Your task to perform on an android device: Show me recent news Image 0: 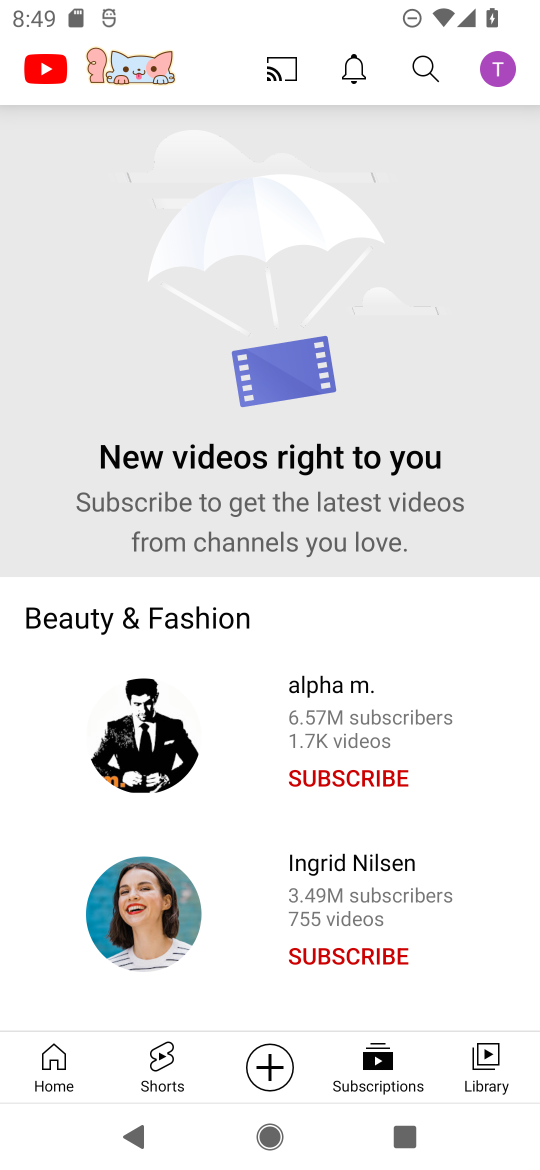
Step 0: press home button
Your task to perform on an android device: Show me recent news Image 1: 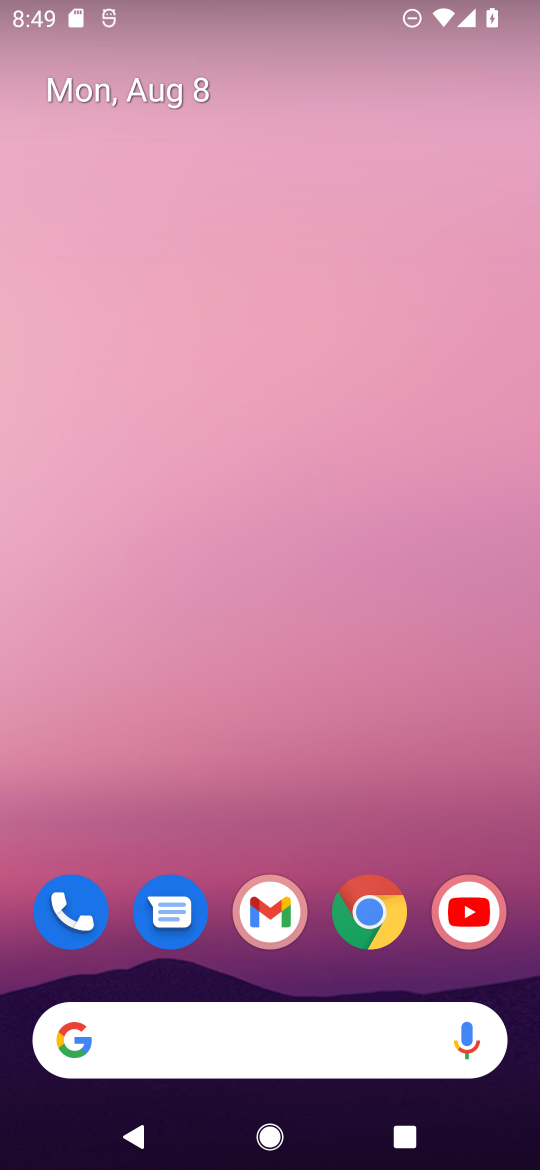
Step 1: drag from (410, 829) to (298, 160)
Your task to perform on an android device: Show me recent news Image 2: 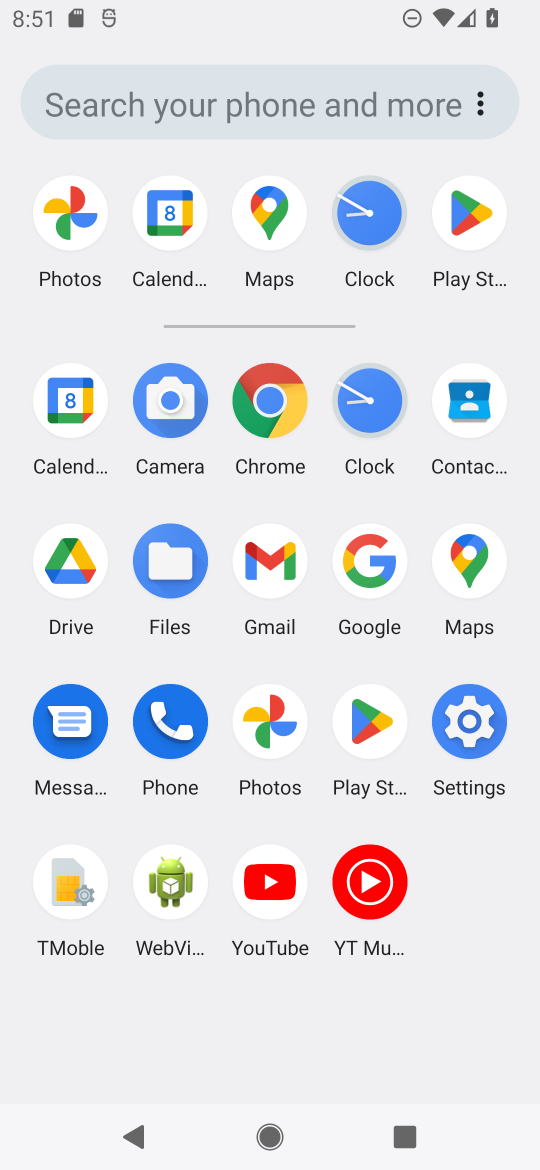
Step 2: click (383, 574)
Your task to perform on an android device: Show me recent news Image 3: 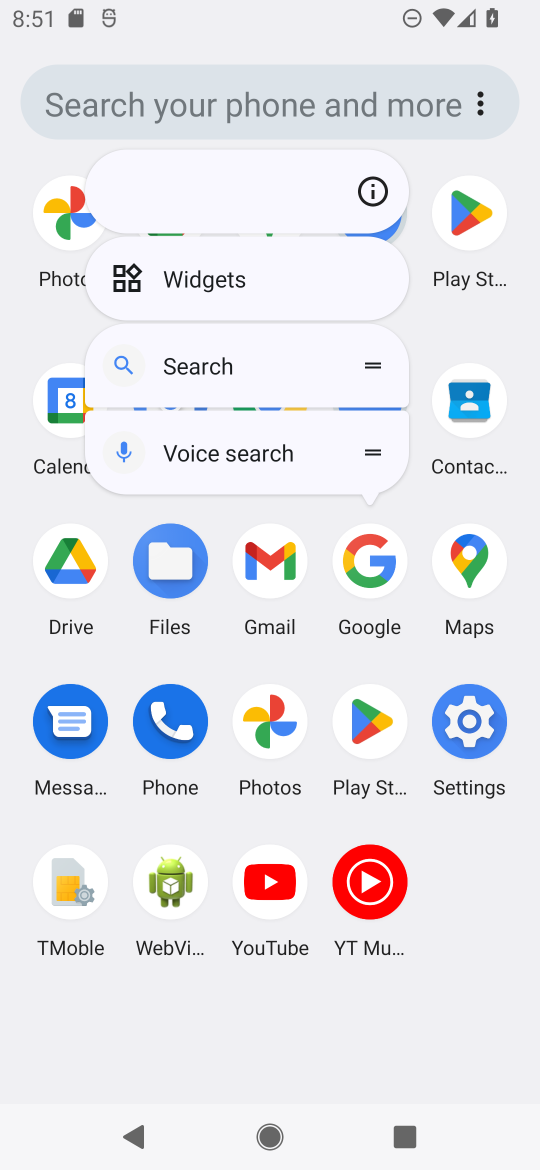
Step 3: click (383, 574)
Your task to perform on an android device: Show me recent news Image 4: 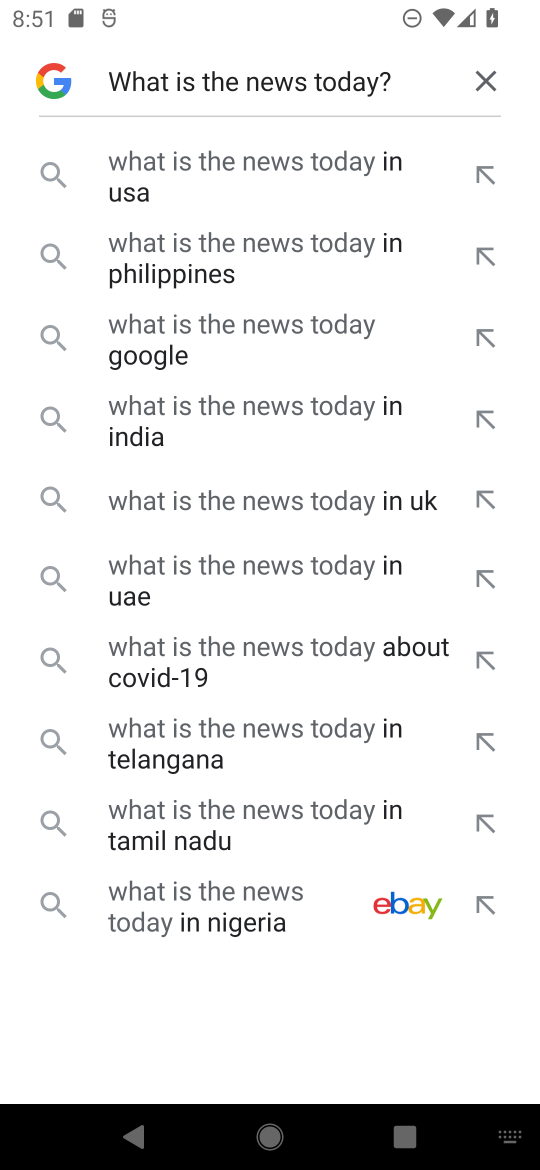
Step 4: click (494, 71)
Your task to perform on an android device: Show me recent news Image 5: 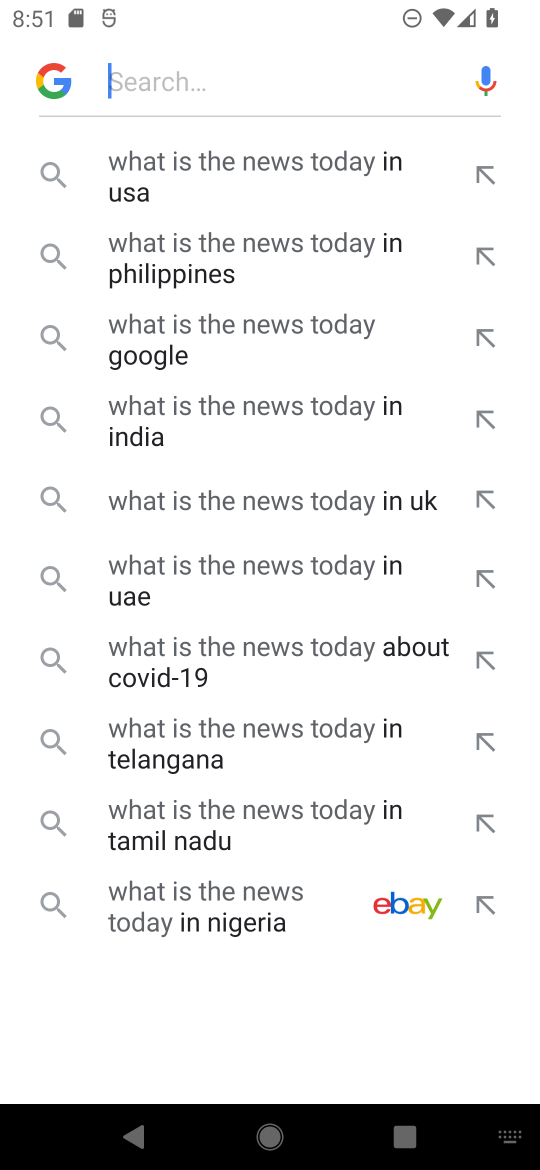
Step 5: type "Show me recent news"
Your task to perform on an android device: Show me recent news Image 6: 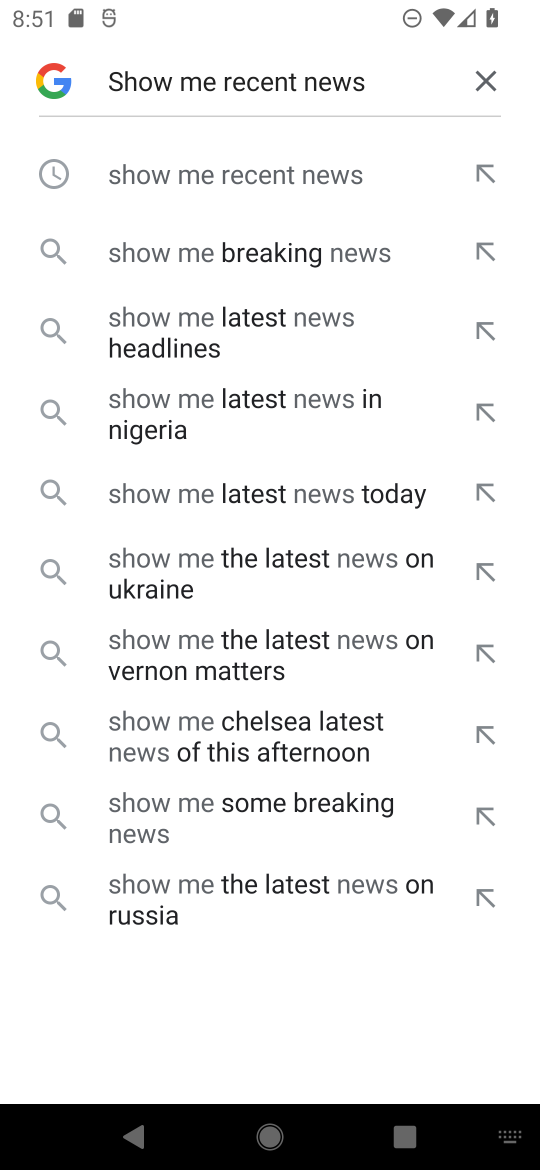
Step 6: click (260, 182)
Your task to perform on an android device: Show me recent news Image 7: 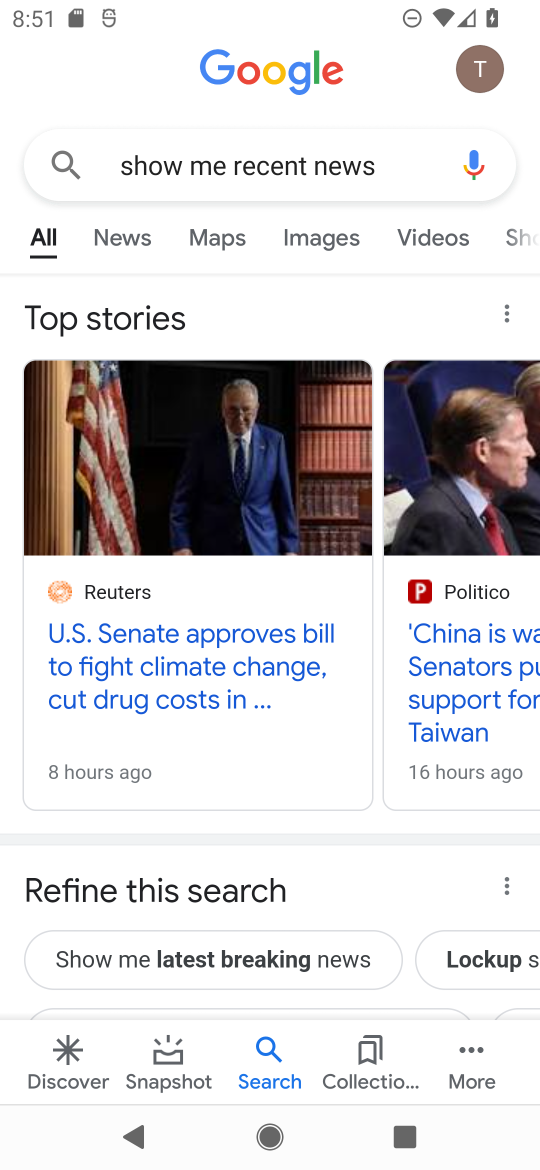
Step 7: task complete